Your task to perform on an android device: open a new tab in the chrome app Image 0: 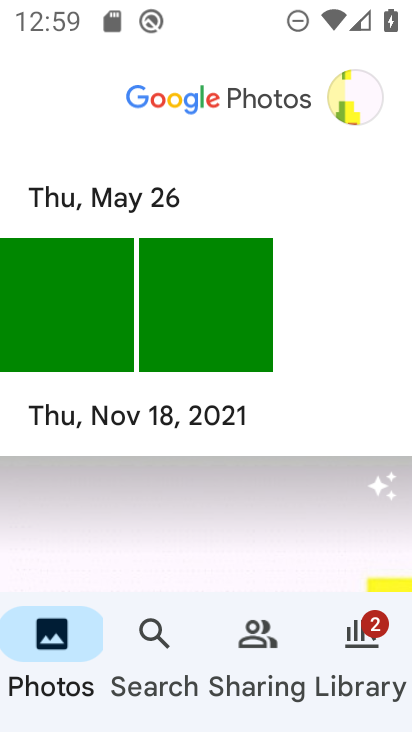
Step 0: press home button
Your task to perform on an android device: open a new tab in the chrome app Image 1: 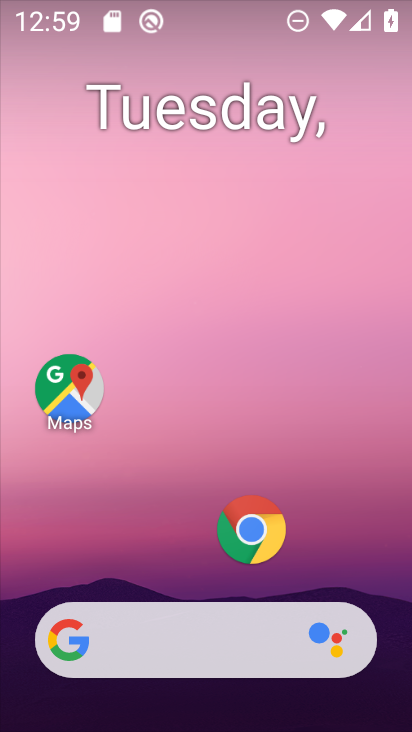
Step 1: click (241, 539)
Your task to perform on an android device: open a new tab in the chrome app Image 2: 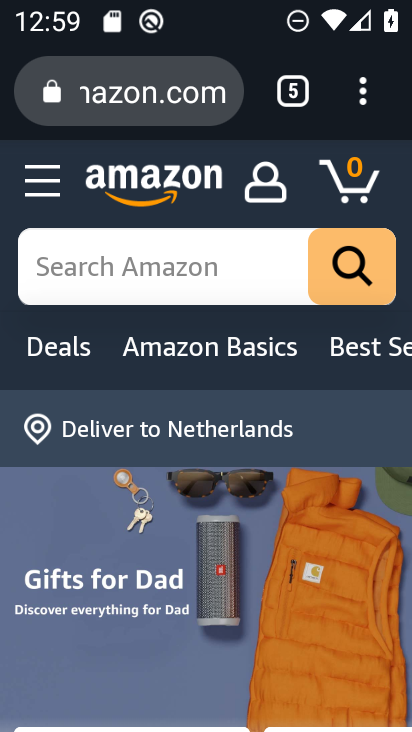
Step 2: click (358, 92)
Your task to perform on an android device: open a new tab in the chrome app Image 3: 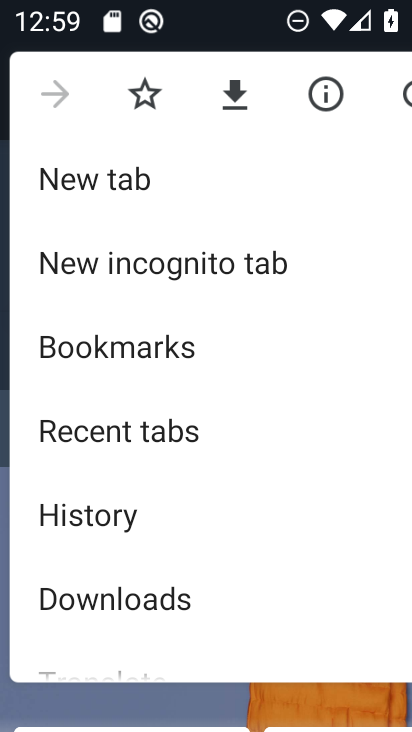
Step 3: click (127, 171)
Your task to perform on an android device: open a new tab in the chrome app Image 4: 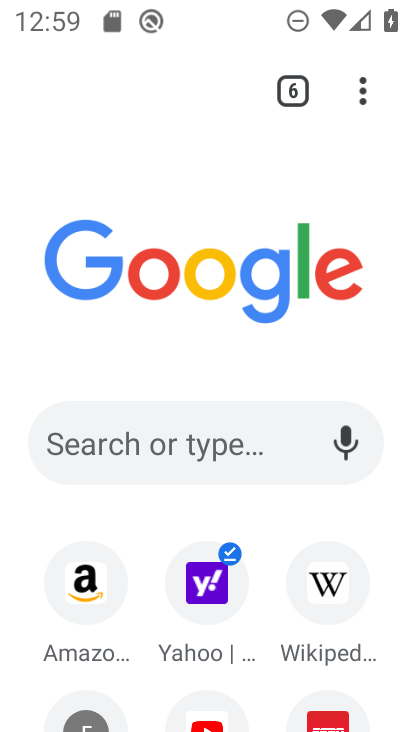
Step 4: task complete